Your task to perform on an android device: change the clock style Image 0: 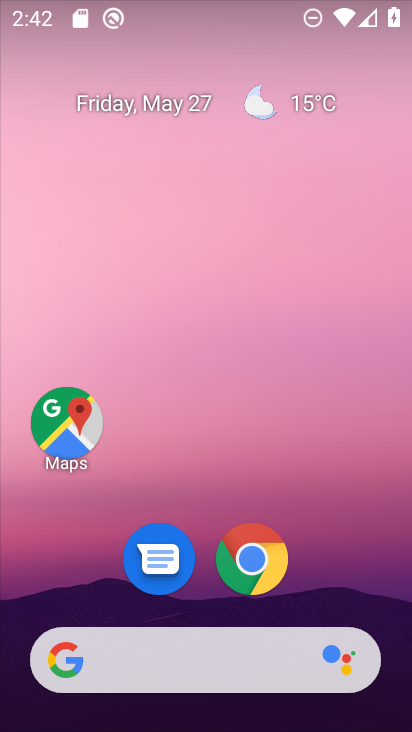
Step 0: drag from (190, 644) to (236, 4)
Your task to perform on an android device: change the clock style Image 1: 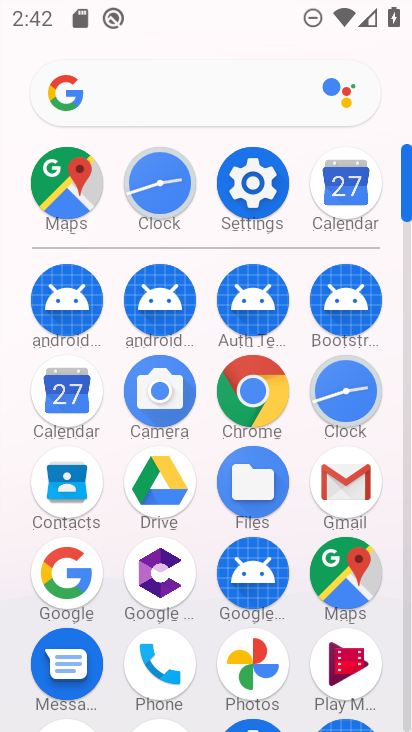
Step 1: click (321, 389)
Your task to perform on an android device: change the clock style Image 2: 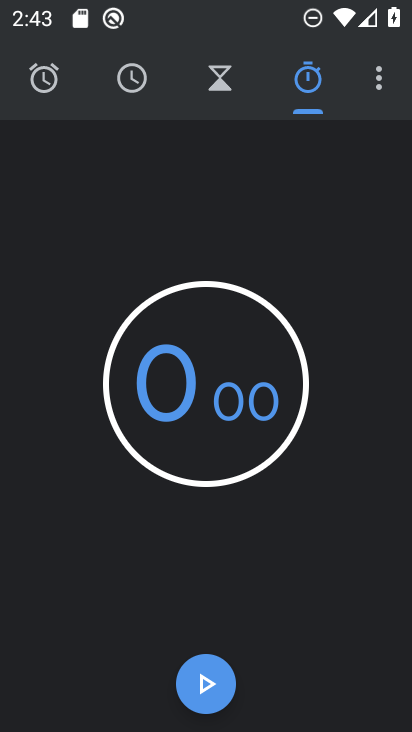
Step 2: click (397, 68)
Your task to perform on an android device: change the clock style Image 3: 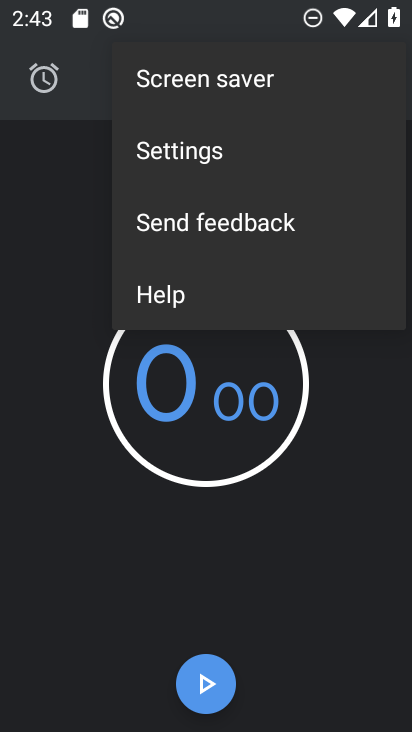
Step 3: click (226, 159)
Your task to perform on an android device: change the clock style Image 4: 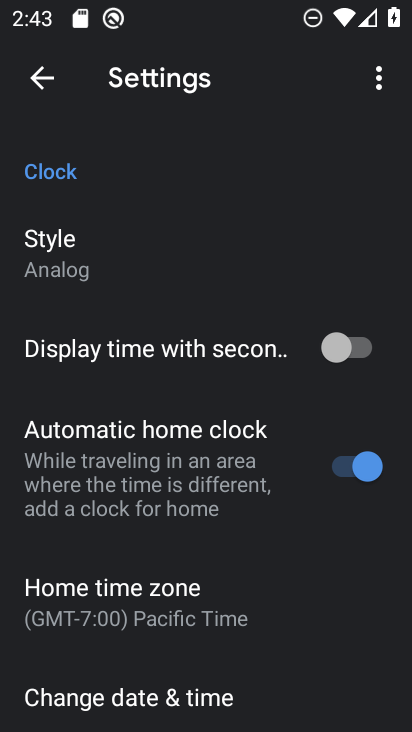
Step 4: click (130, 267)
Your task to perform on an android device: change the clock style Image 5: 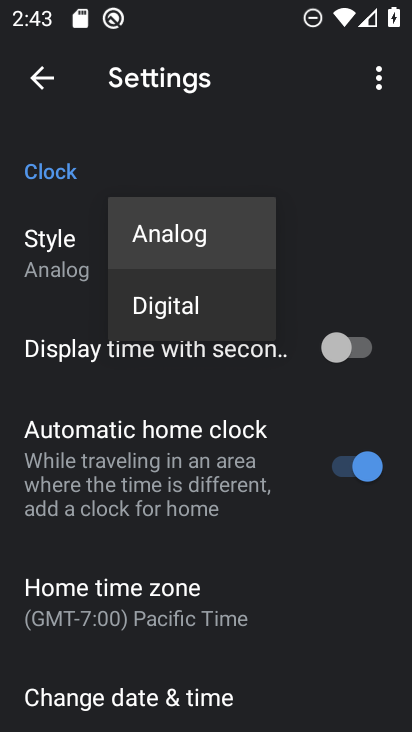
Step 5: click (161, 312)
Your task to perform on an android device: change the clock style Image 6: 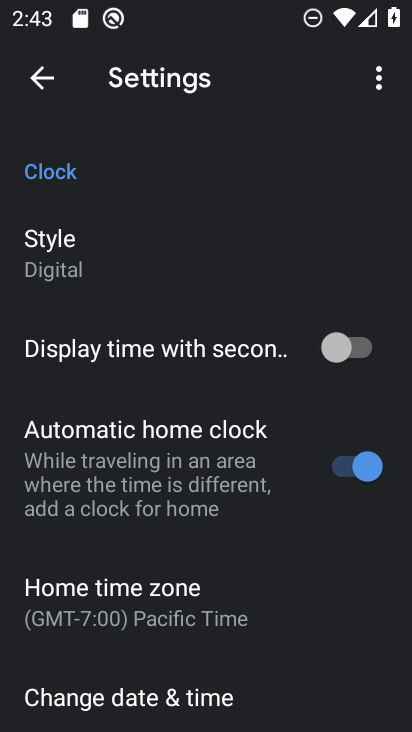
Step 6: task complete